Your task to perform on an android device: turn off translation in the chrome app Image 0: 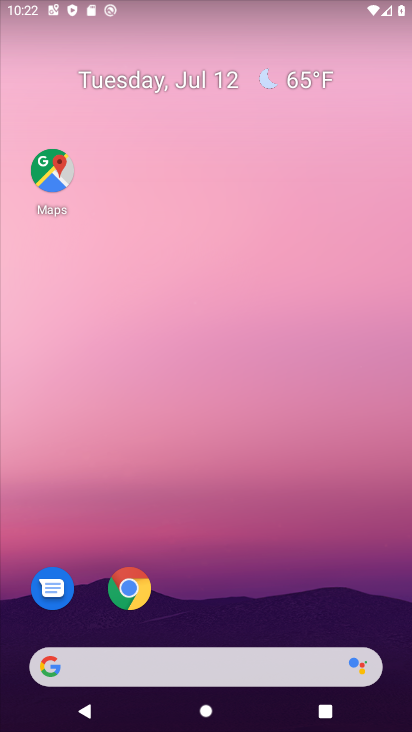
Step 0: click (139, 592)
Your task to perform on an android device: turn off translation in the chrome app Image 1: 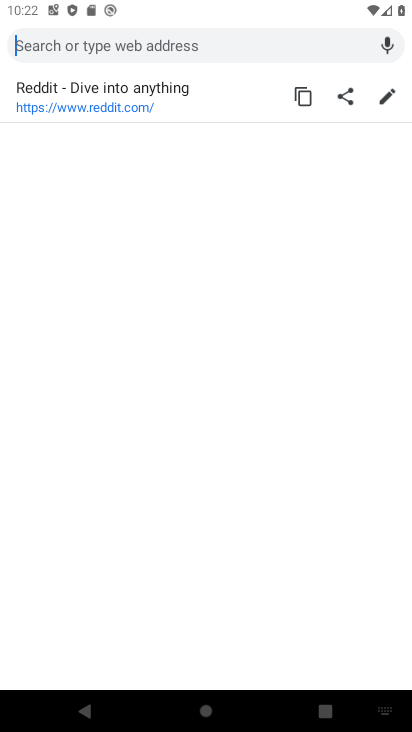
Step 1: click (139, 44)
Your task to perform on an android device: turn off translation in the chrome app Image 2: 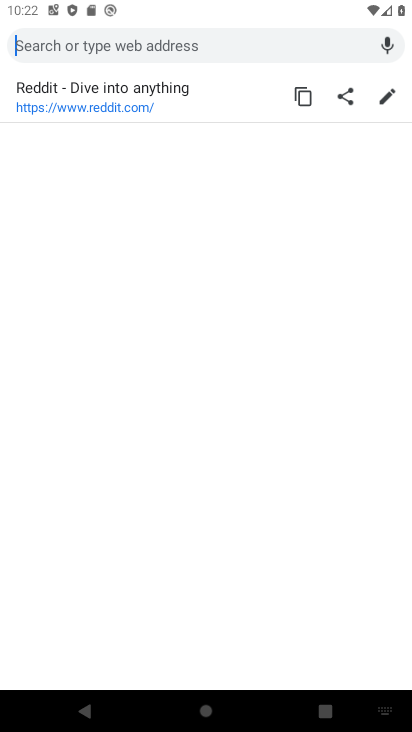
Step 2: task complete